Your task to perform on an android device: snooze an email in the gmail app Image 0: 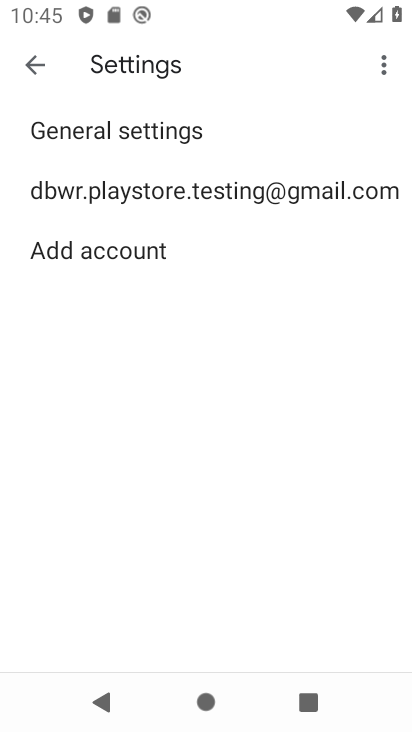
Step 0: click (26, 67)
Your task to perform on an android device: snooze an email in the gmail app Image 1: 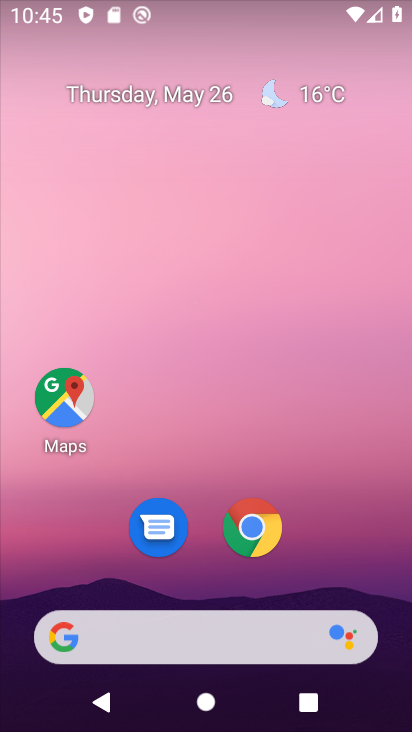
Step 1: drag from (317, 509) to (343, 30)
Your task to perform on an android device: snooze an email in the gmail app Image 2: 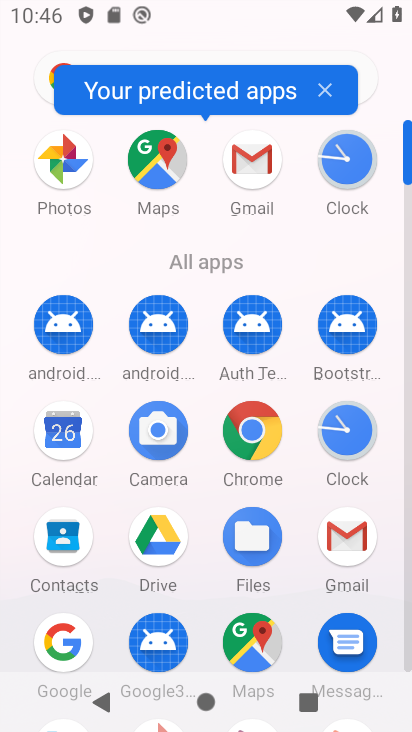
Step 2: click (238, 157)
Your task to perform on an android device: snooze an email in the gmail app Image 3: 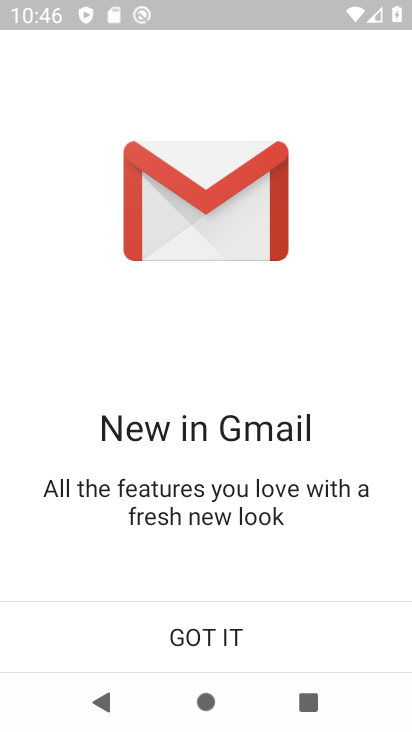
Step 3: click (212, 616)
Your task to perform on an android device: snooze an email in the gmail app Image 4: 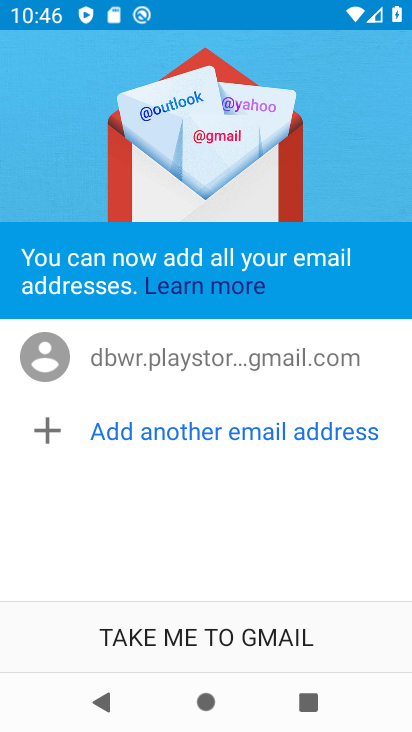
Step 4: click (216, 637)
Your task to perform on an android device: snooze an email in the gmail app Image 5: 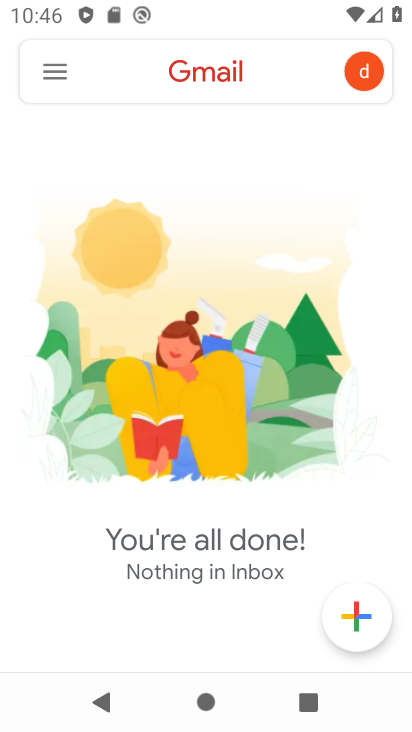
Step 5: click (61, 85)
Your task to perform on an android device: snooze an email in the gmail app Image 6: 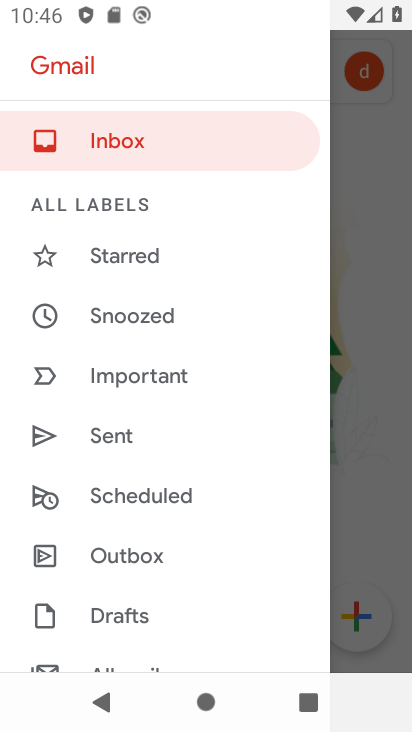
Step 6: drag from (151, 618) to (152, 325)
Your task to perform on an android device: snooze an email in the gmail app Image 7: 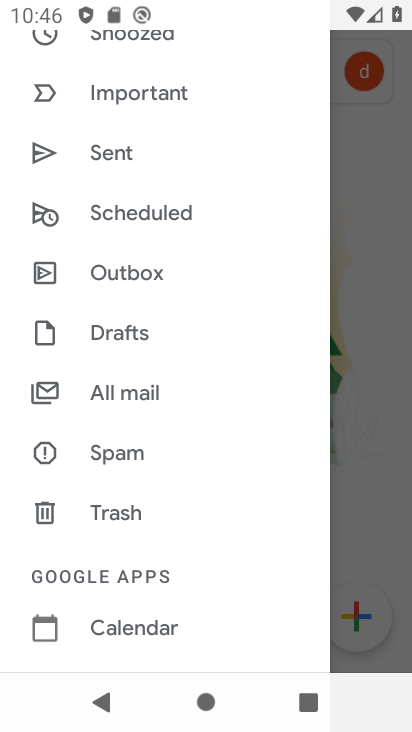
Step 7: click (114, 399)
Your task to perform on an android device: snooze an email in the gmail app Image 8: 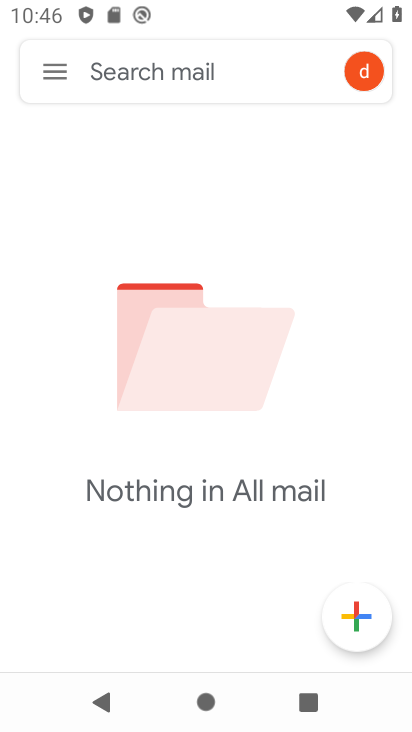
Step 8: task complete